Your task to perform on an android device: change the clock display to show seconds Image 0: 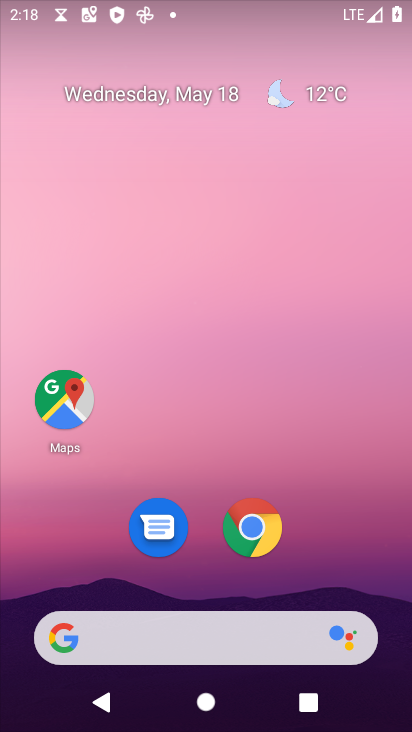
Step 0: drag from (324, 587) to (188, 65)
Your task to perform on an android device: change the clock display to show seconds Image 1: 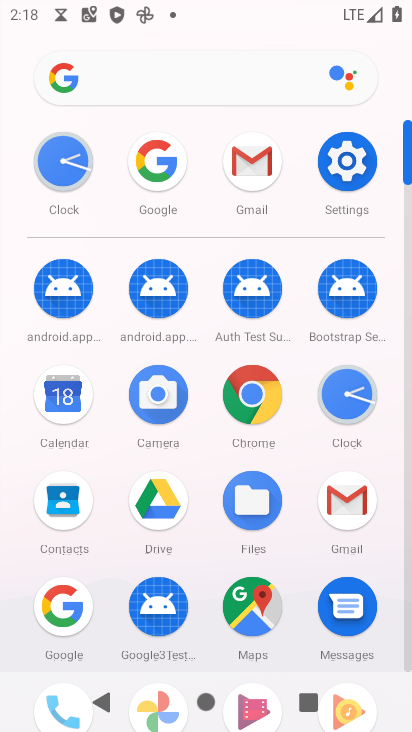
Step 1: click (358, 386)
Your task to perform on an android device: change the clock display to show seconds Image 2: 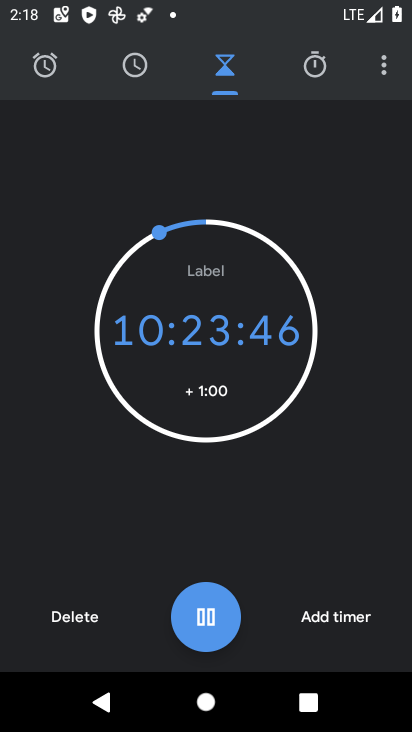
Step 2: click (386, 65)
Your task to perform on an android device: change the clock display to show seconds Image 3: 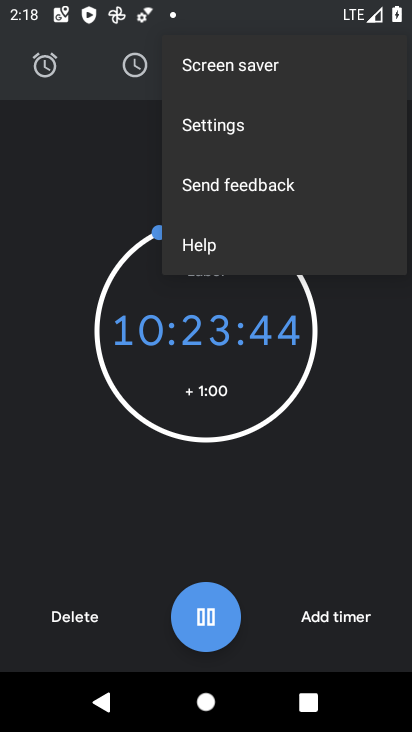
Step 3: click (254, 114)
Your task to perform on an android device: change the clock display to show seconds Image 4: 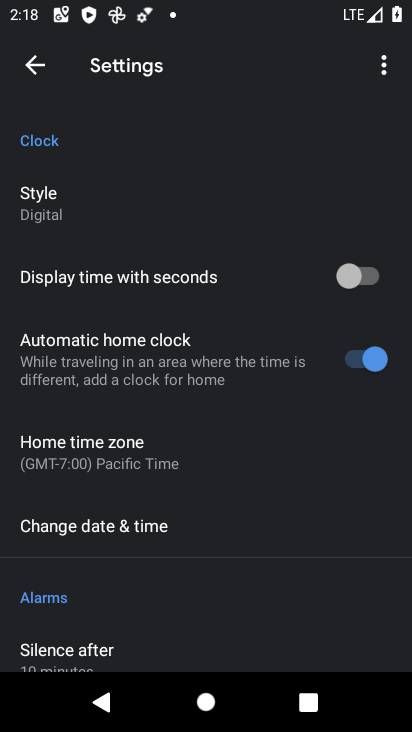
Step 4: click (370, 286)
Your task to perform on an android device: change the clock display to show seconds Image 5: 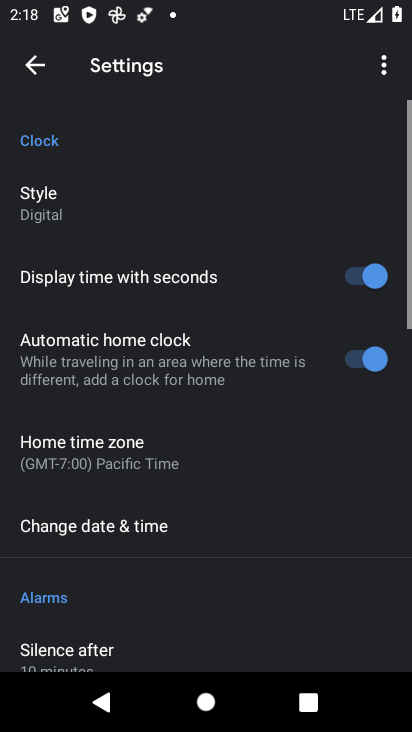
Step 5: task complete